Your task to perform on an android device: Search for "alienware aurora" on target, select the first entry, add it to the cart, then select checkout. Image 0: 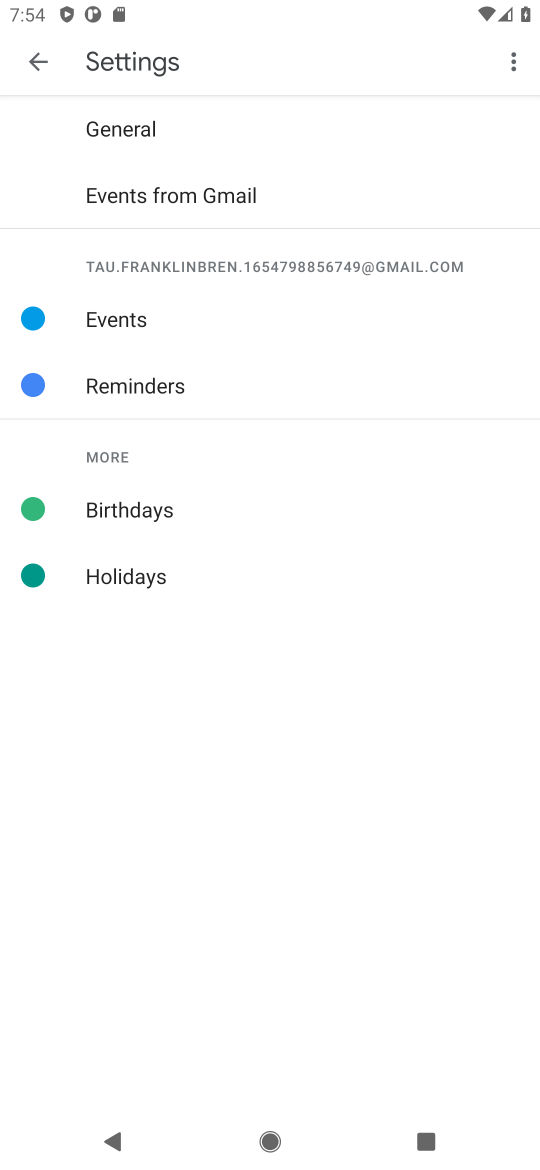
Step 0: press home button
Your task to perform on an android device: Search for "alienware aurora" on target, select the first entry, add it to the cart, then select checkout. Image 1: 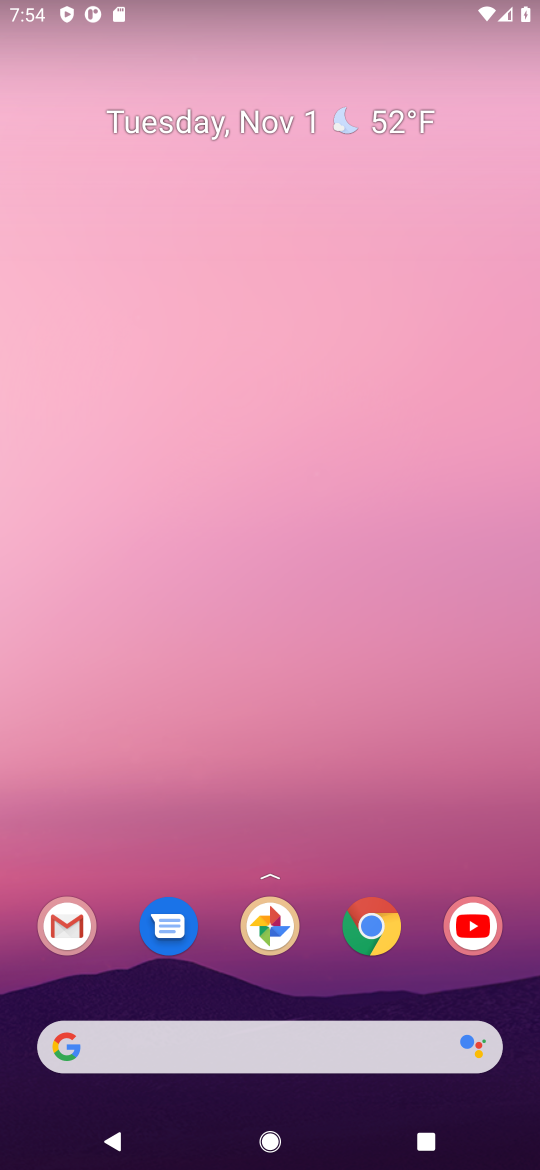
Step 1: click (373, 931)
Your task to perform on an android device: Search for "alienware aurora" on target, select the first entry, add it to the cart, then select checkout. Image 2: 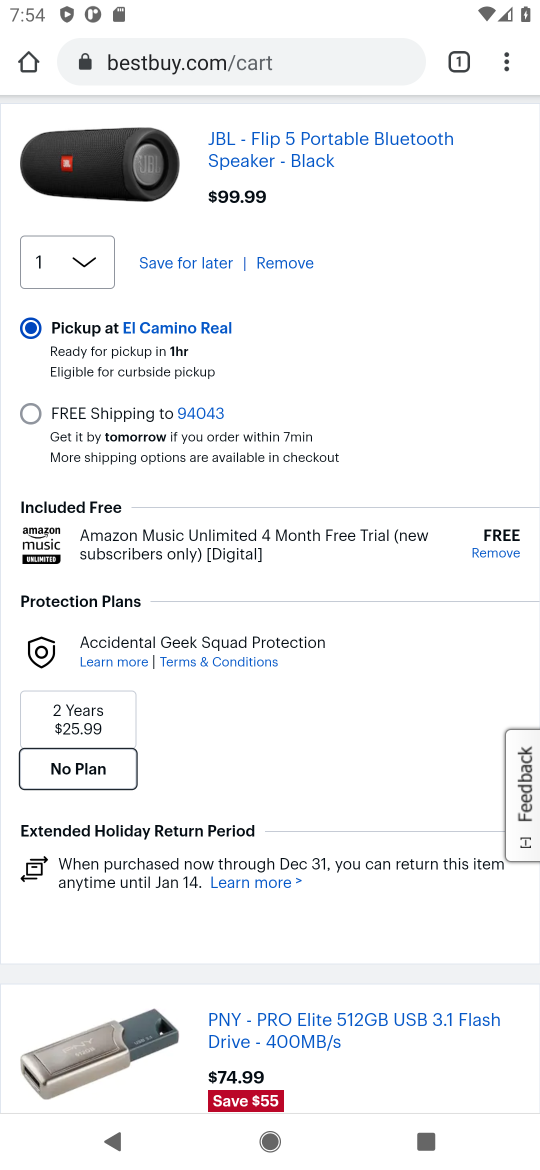
Step 2: click (155, 69)
Your task to perform on an android device: Search for "alienware aurora" on target, select the first entry, add it to the cart, then select checkout. Image 3: 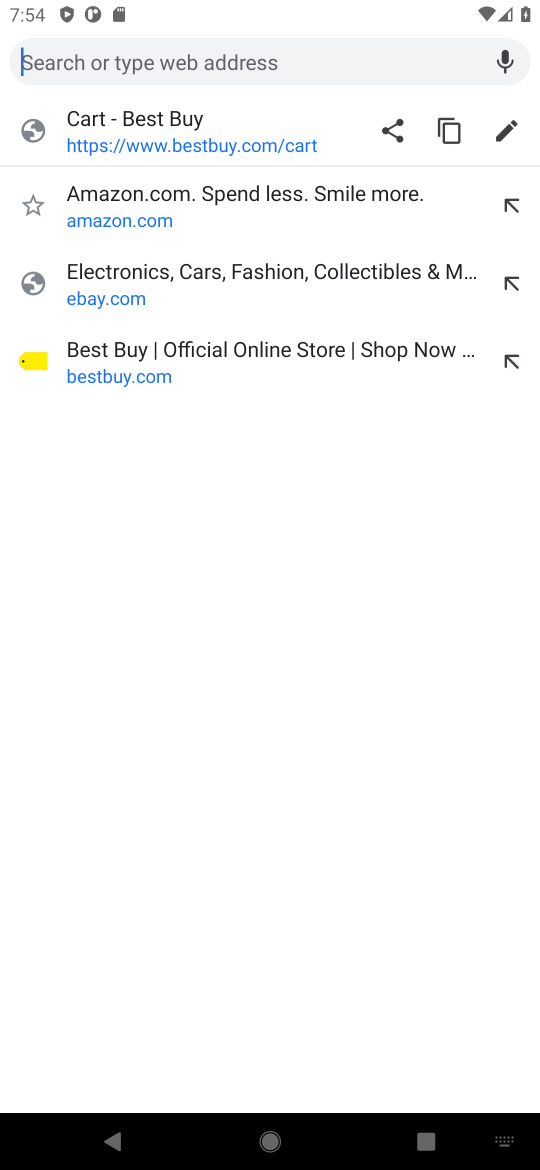
Step 3: type "target"
Your task to perform on an android device: Search for "alienware aurora" on target, select the first entry, add it to the cart, then select checkout. Image 4: 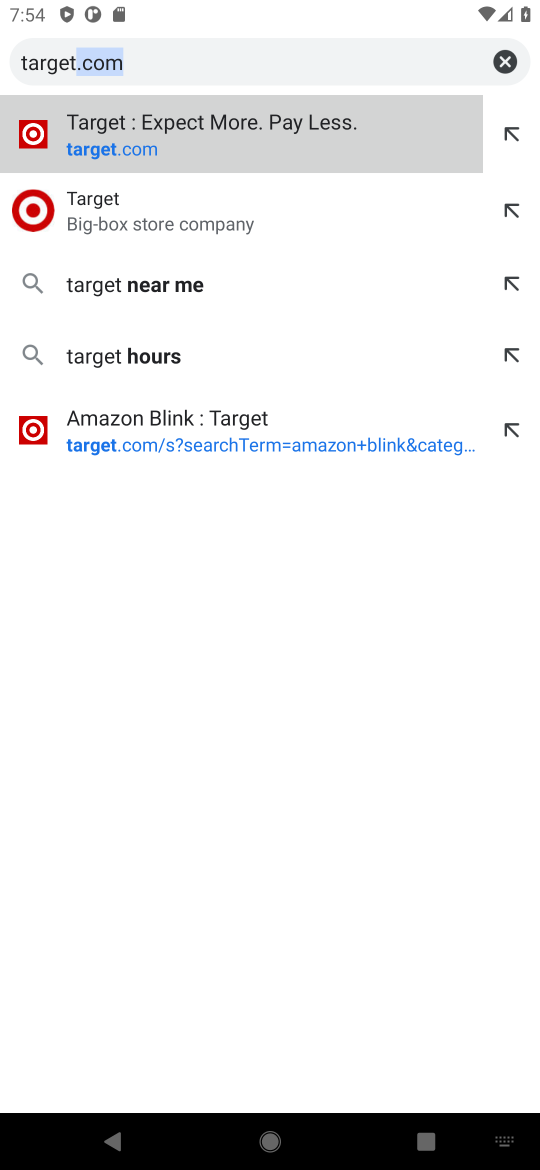
Step 4: type ""
Your task to perform on an android device: Search for "alienware aurora" on target, select the first entry, add it to the cart, then select checkout. Image 5: 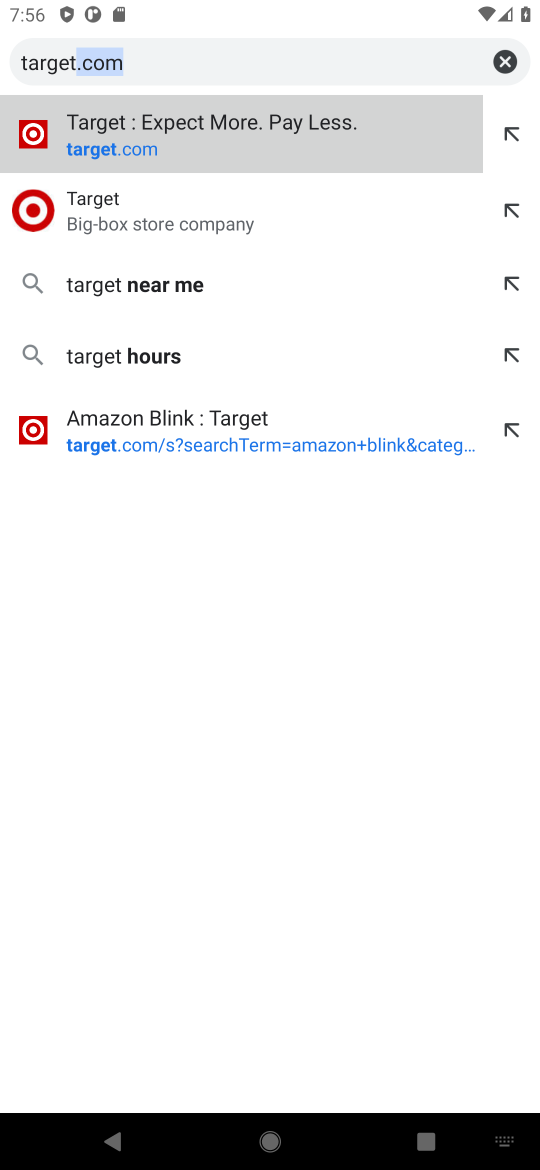
Step 5: click (120, 151)
Your task to perform on an android device: Search for "alienware aurora" on target, select the first entry, add it to the cart, then select checkout. Image 6: 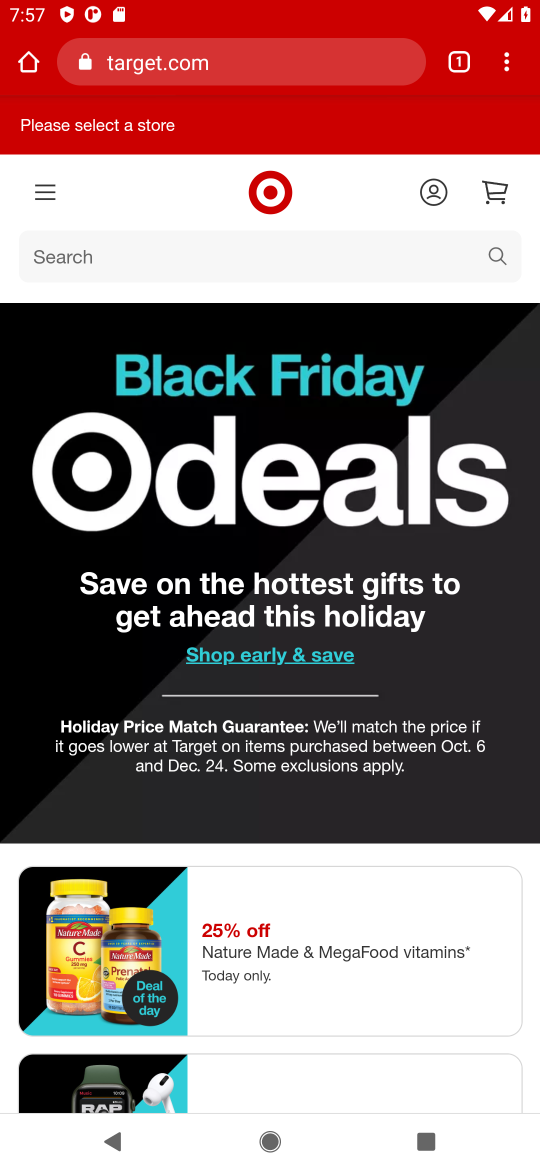
Step 6: click (493, 257)
Your task to perform on an android device: Search for "alienware aurora" on target, select the first entry, add it to the cart, then select checkout. Image 7: 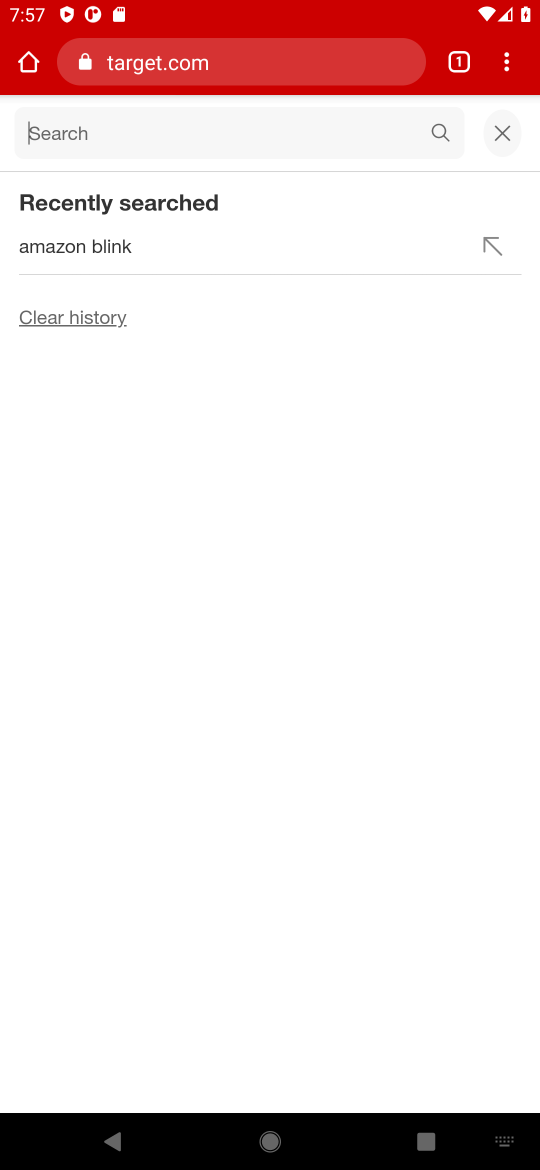
Step 7: type "allienware aurura"
Your task to perform on an android device: Search for "alienware aurora" on target, select the first entry, add it to the cart, then select checkout. Image 8: 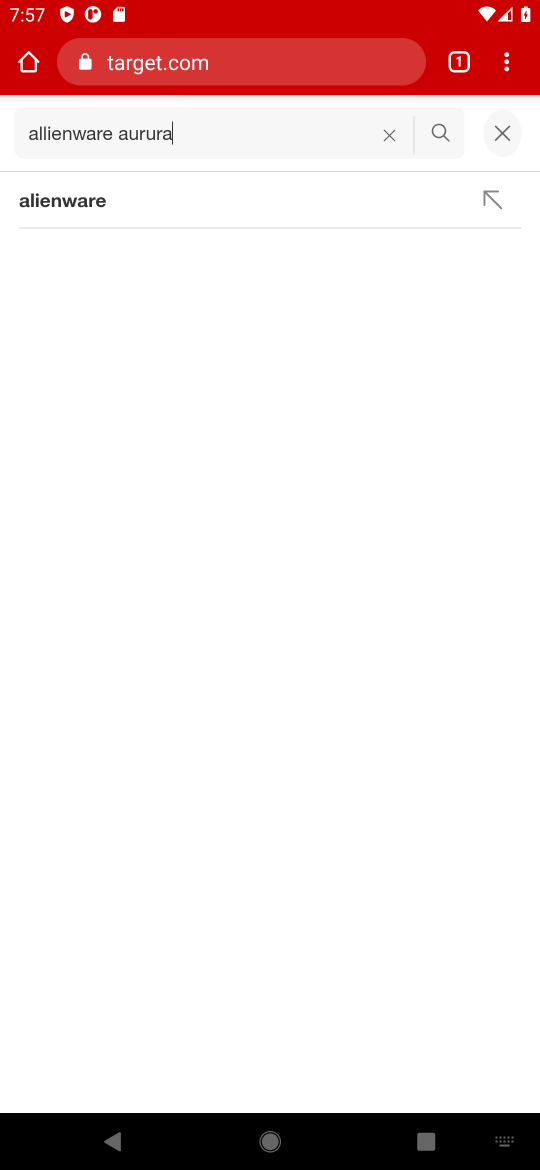
Step 8: click (80, 194)
Your task to perform on an android device: Search for "alienware aurora" on target, select the first entry, add it to the cart, then select checkout. Image 9: 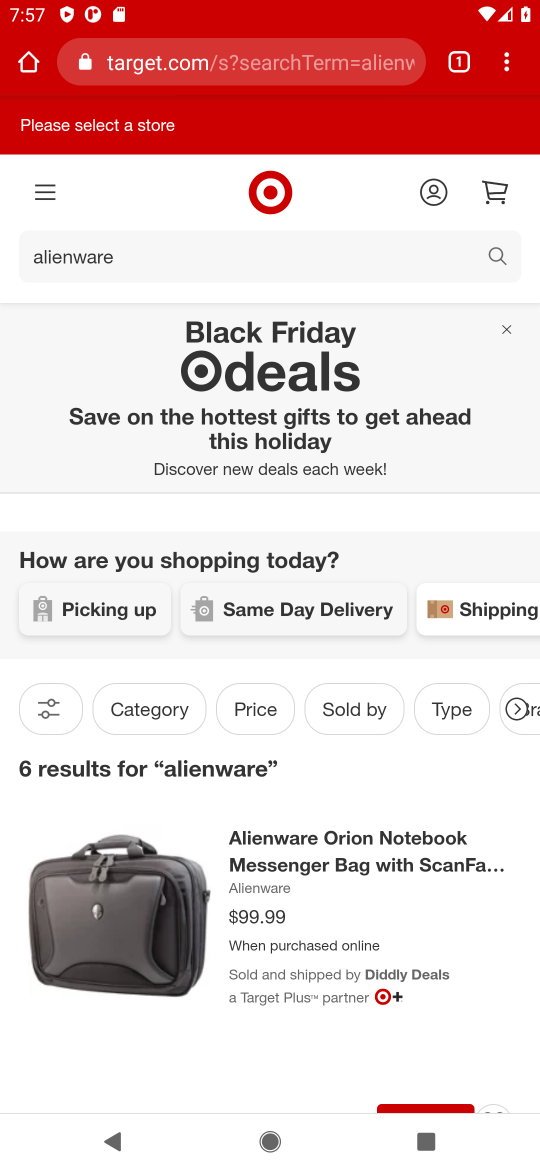
Step 9: drag from (309, 877) to (277, 482)
Your task to perform on an android device: Search for "alienware aurora" on target, select the first entry, add it to the cart, then select checkout. Image 10: 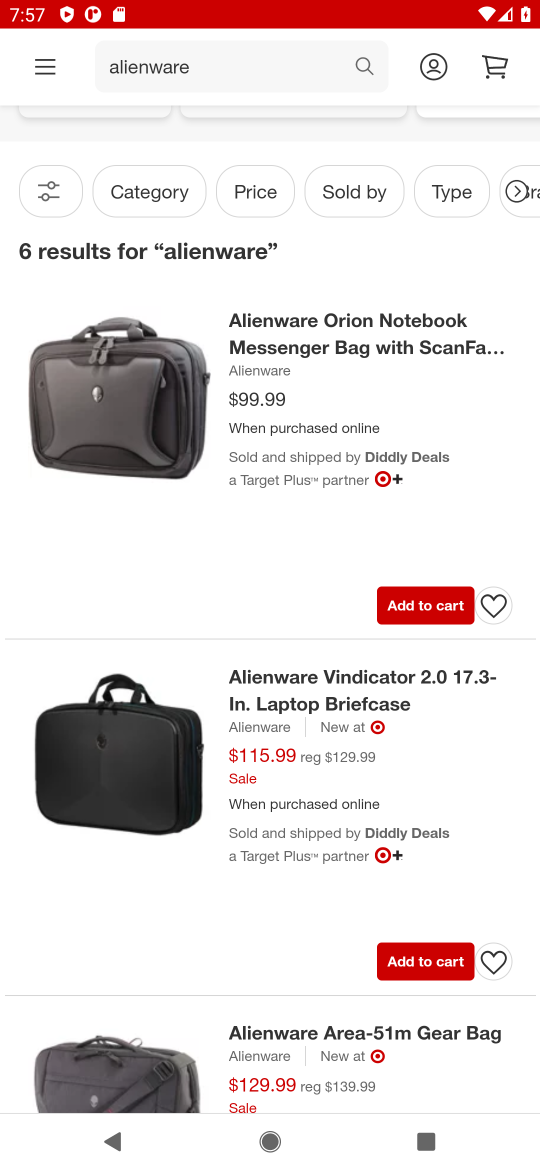
Step 10: click (282, 684)
Your task to perform on an android device: Search for "alienware aurora" on target, select the first entry, add it to the cart, then select checkout. Image 11: 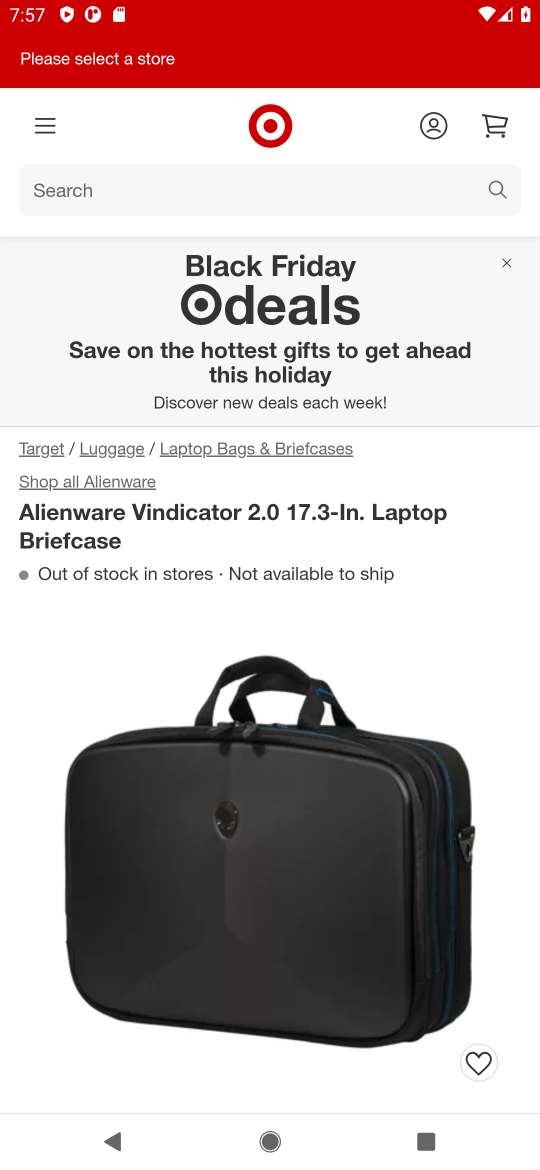
Step 11: drag from (333, 856) to (361, 17)
Your task to perform on an android device: Search for "alienware aurora" on target, select the first entry, add it to the cart, then select checkout. Image 12: 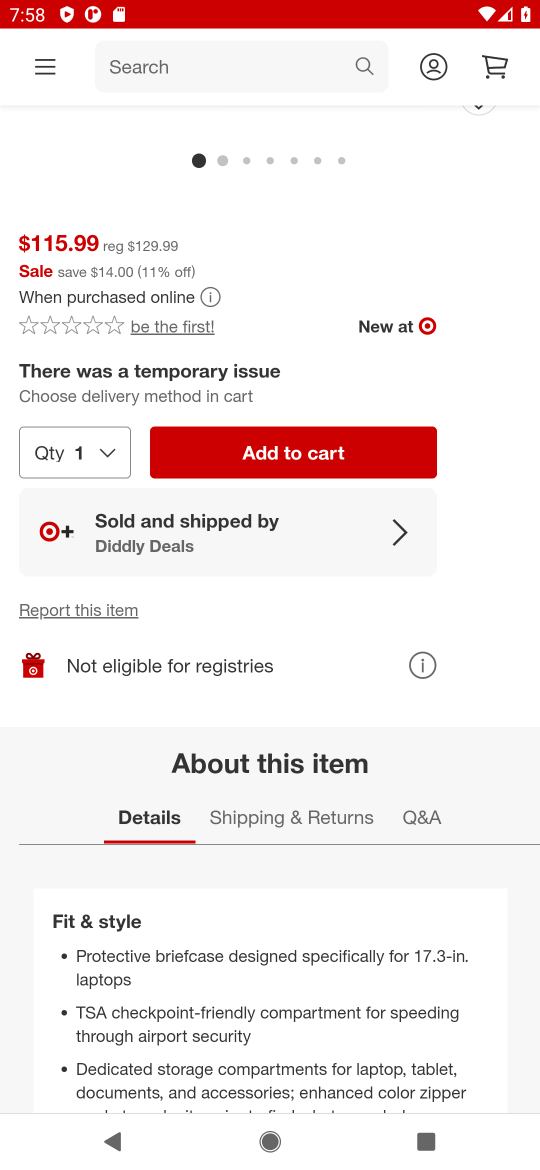
Step 12: click (279, 464)
Your task to perform on an android device: Search for "alienware aurora" on target, select the first entry, add it to the cart, then select checkout. Image 13: 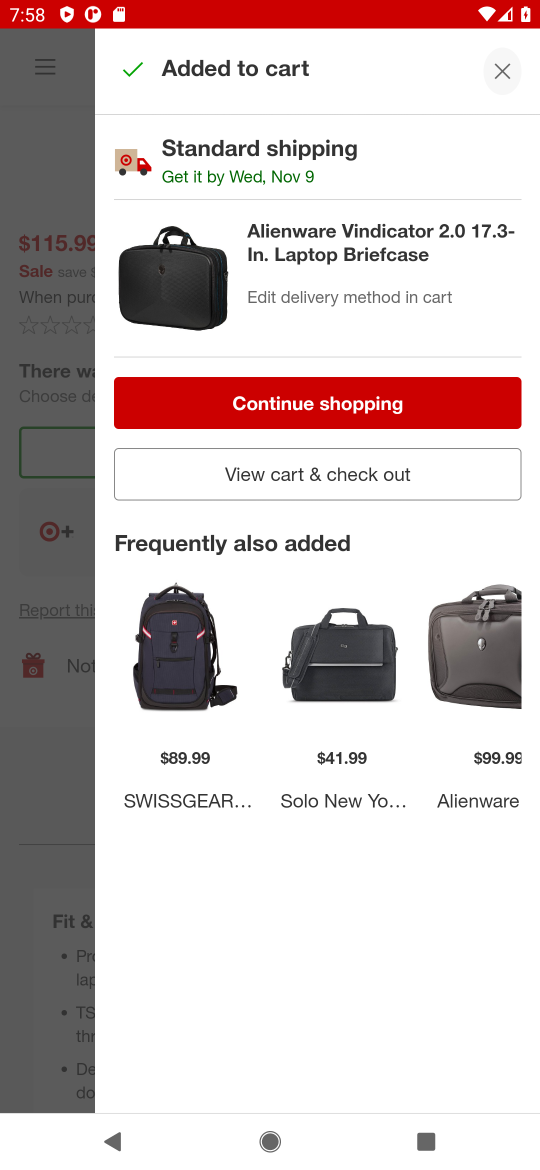
Step 13: click (273, 472)
Your task to perform on an android device: Search for "alienware aurora" on target, select the first entry, add it to the cart, then select checkout. Image 14: 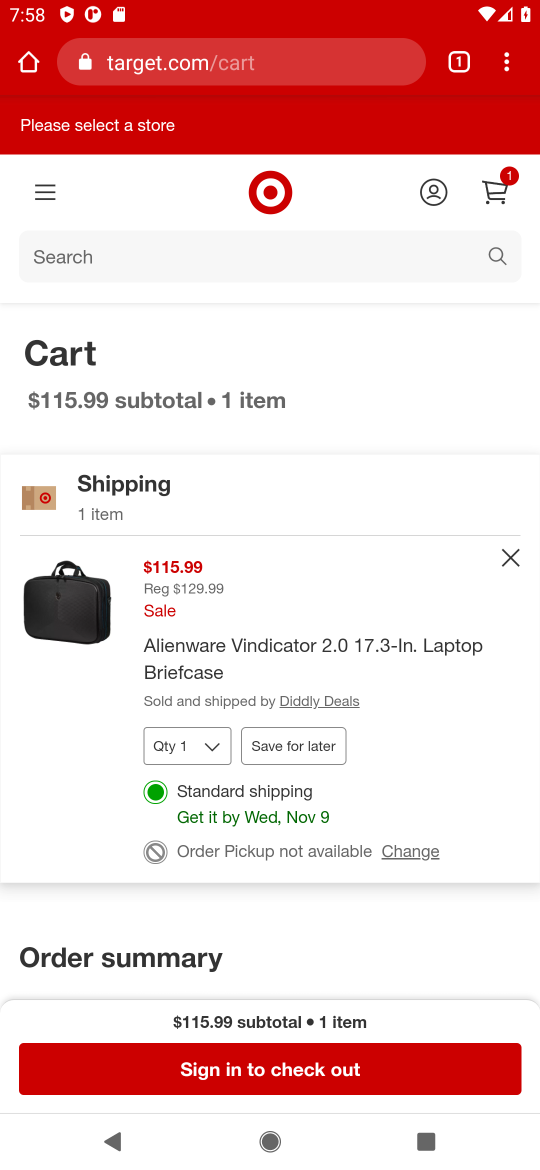
Step 14: click (235, 1077)
Your task to perform on an android device: Search for "alienware aurora" on target, select the first entry, add it to the cart, then select checkout. Image 15: 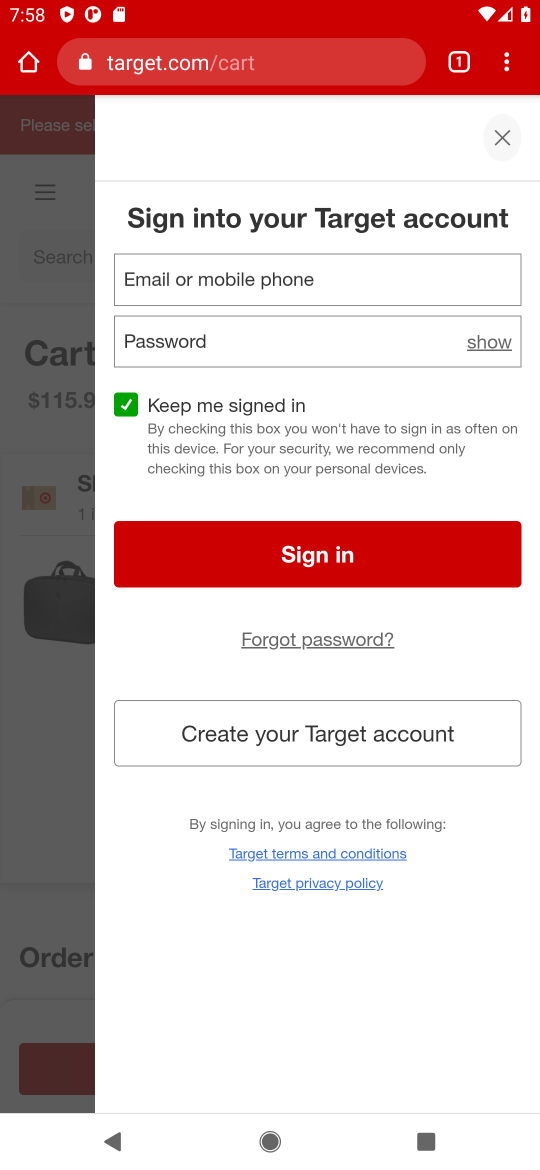
Step 15: task complete